Your task to perform on an android device: refresh tabs in the chrome app Image 0: 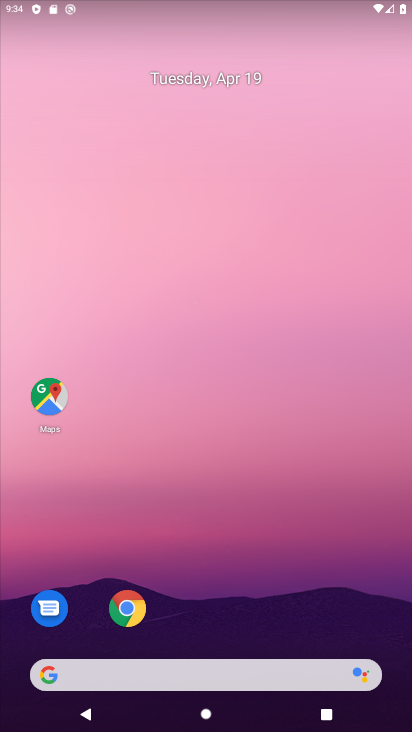
Step 0: click (123, 603)
Your task to perform on an android device: refresh tabs in the chrome app Image 1: 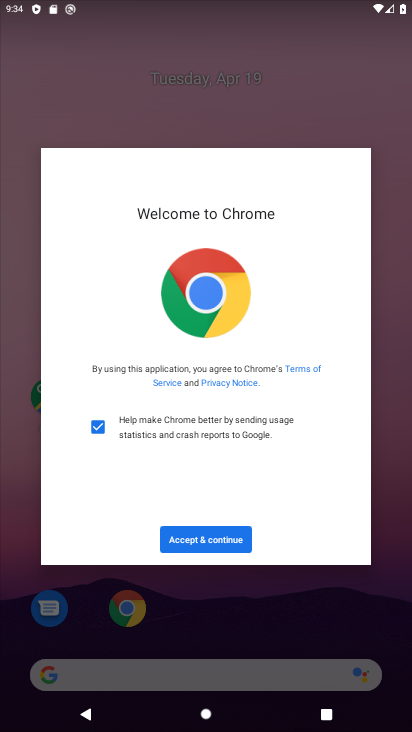
Step 1: click (204, 536)
Your task to perform on an android device: refresh tabs in the chrome app Image 2: 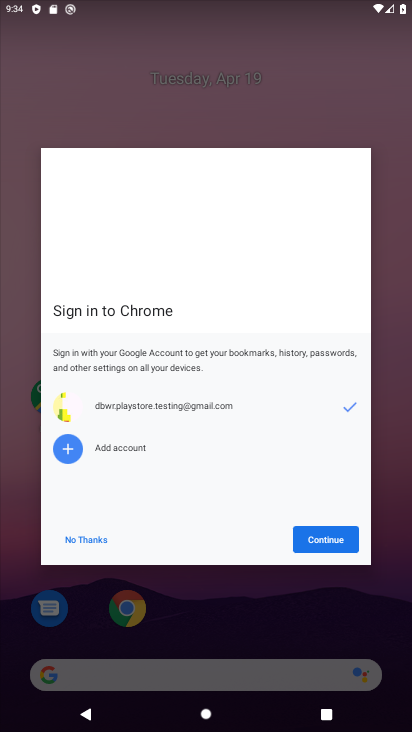
Step 2: click (322, 535)
Your task to perform on an android device: refresh tabs in the chrome app Image 3: 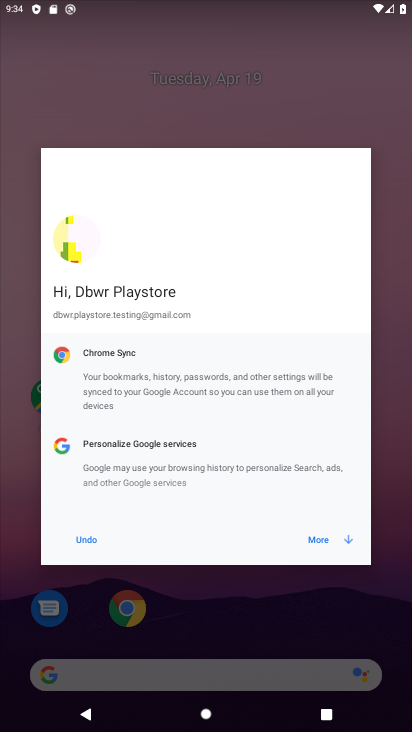
Step 3: click (315, 537)
Your task to perform on an android device: refresh tabs in the chrome app Image 4: 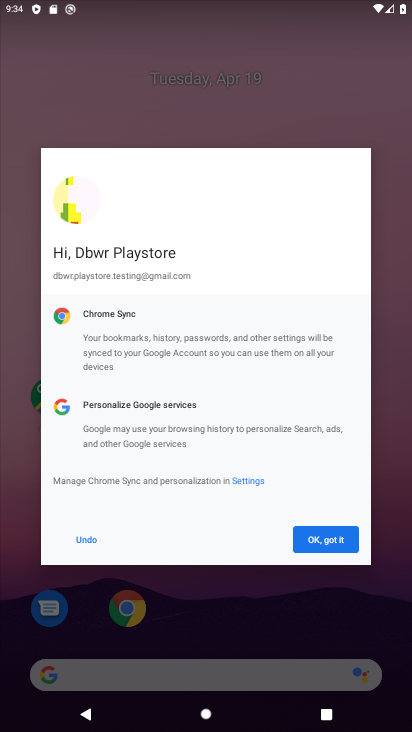
Step 4: click (320, 537)
Your task to perform on an android device: refresh tabs in the chrome app Image 5: 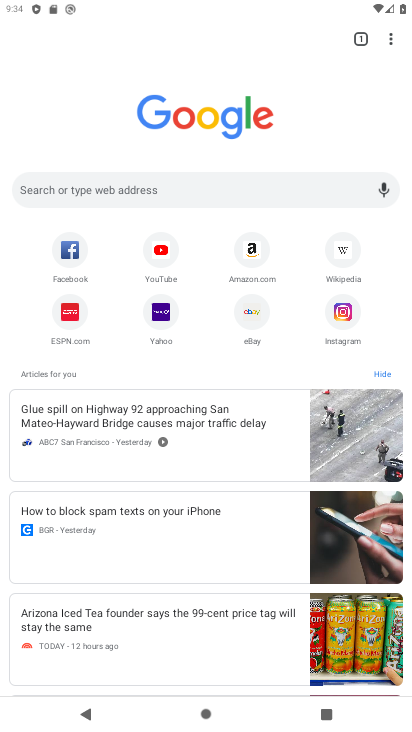
Step 5: click (389, 38)
Your task to perform on an android device: refresh tabs in the chrome app Image 6: 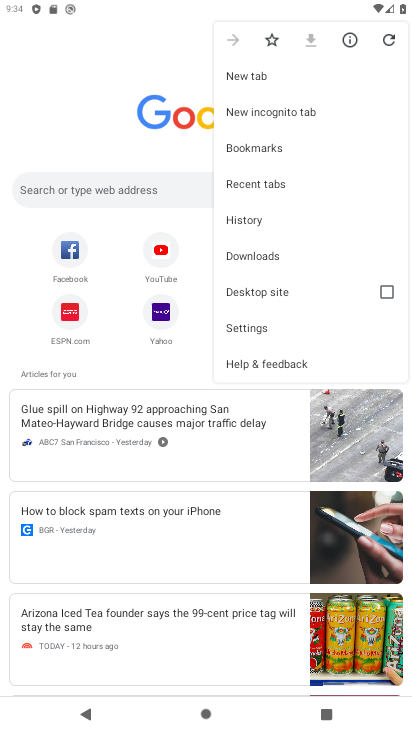
Step 6: click (388, 33)
Your task to perform on an android device: refresh tabs in the chrome app Image 7: 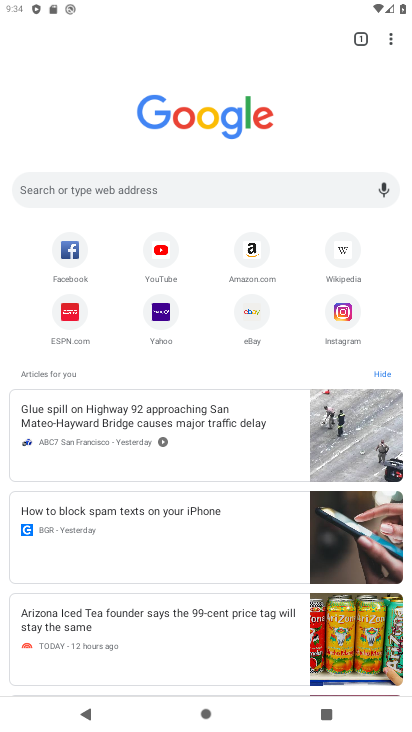
Step 7: task complete